Your task to perform on an android device: change keyboard looks Image 0: 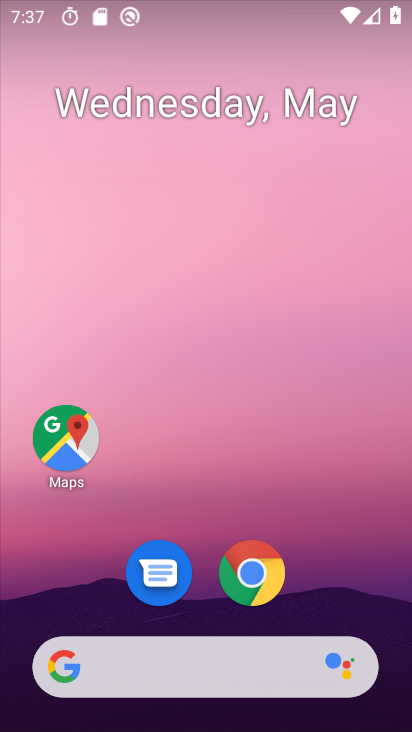
Step 0: drag from (371, 601) to (264, 20)
Your task to perform on an android device: change keyboard looks Image 1: 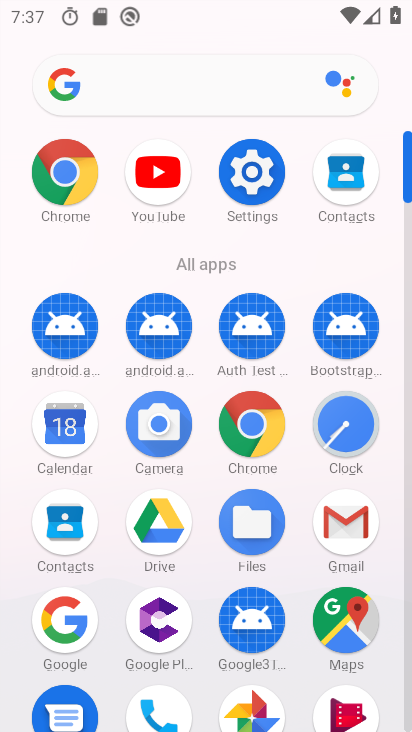
Step 1: click (240, 161)
Your task to perform on an android device: change keyboard looks Image 2: 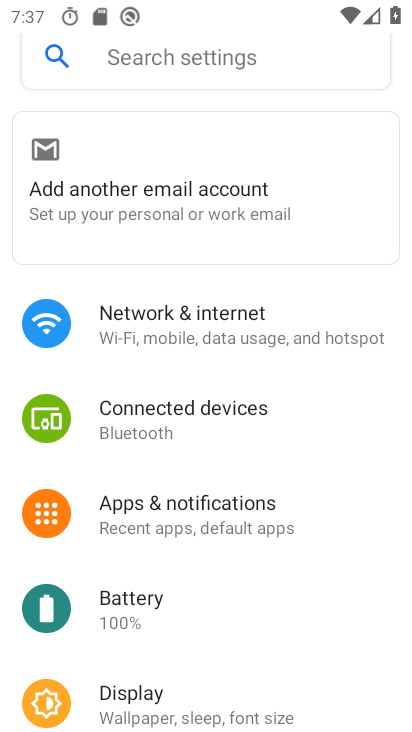
Step 2: drag from (304, 645) to (269, 389)
Your task to perform on an android device: change keyboard looks Image 3: 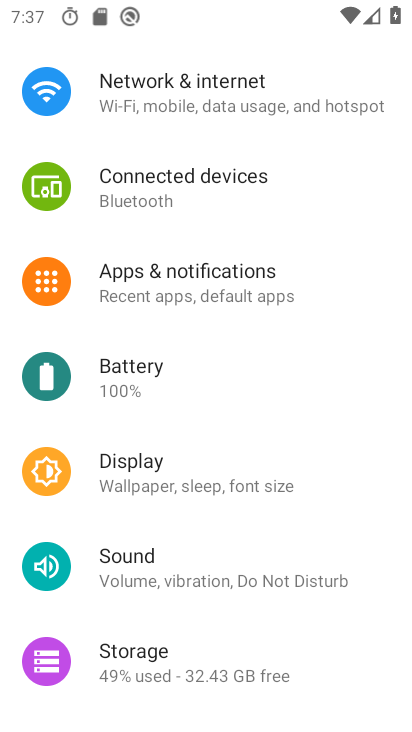
Step 3: drag from (261, 621) to (209, 342)
Your task to perform on an android device: change keyboard looks Image 4: 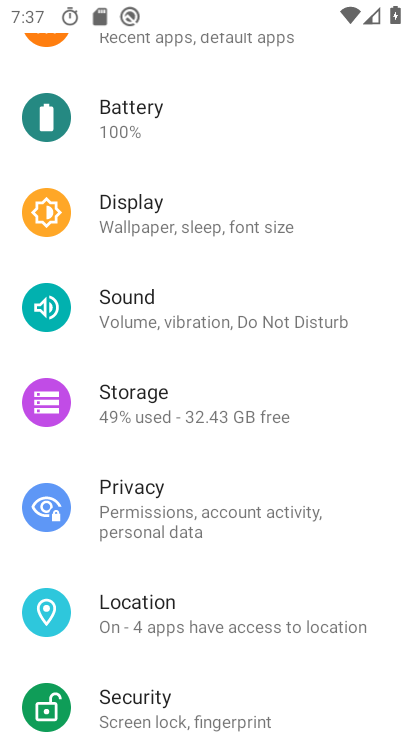
Step 4: drag from (222, 632) to (234, 408)
Your task to perform on an android device: change keyboard looks Image 5: 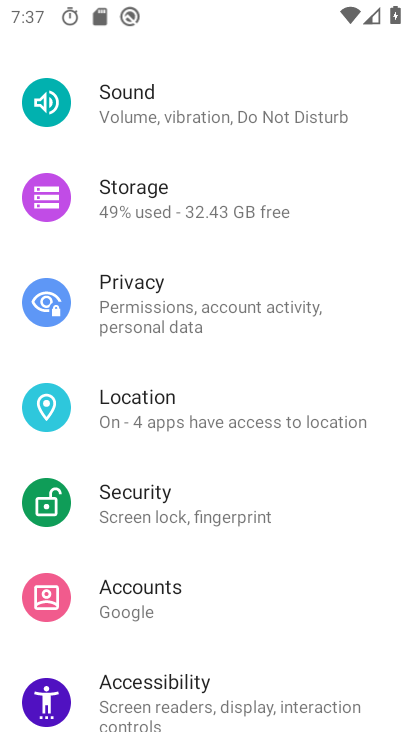
Step 5: drag from (197, 655) to (209, 464)
Your task to perform on an android device: change keyboard looks Image 6: 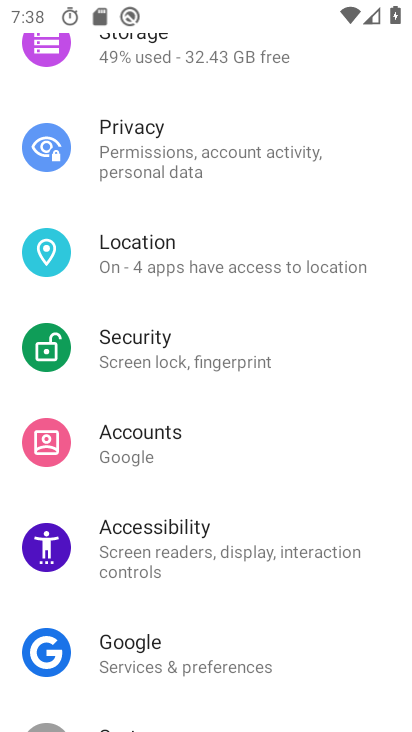
Step 6: drag from (211, 688) to (215, 566)
Your task to perform on an android device: change keyboard looks Image 7: 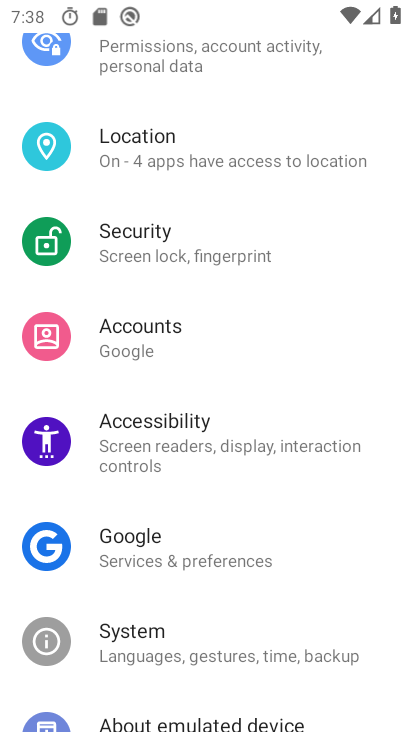
Step 7: click (189, 659)
Your task to perform on an android device: change keyboard looks Image 8: 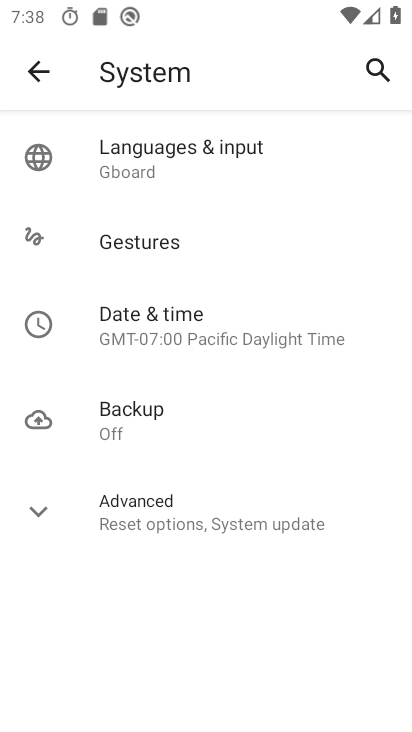
Step 8: click (210, 140)
Your task to perform on an android device: change keyboard looks Image 9: 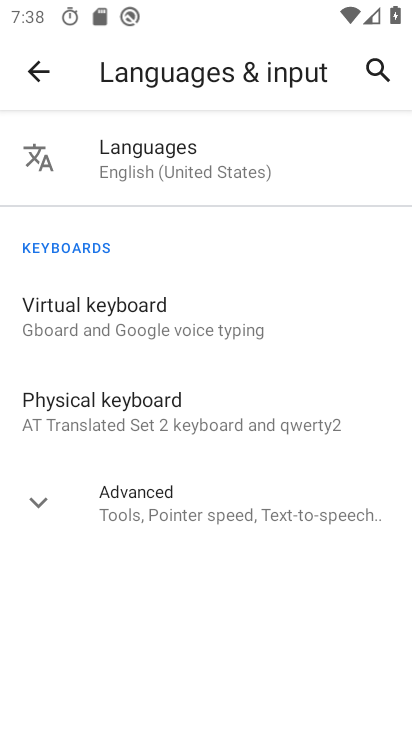
Step 9: click (202, 318)
Your task to perform on an android device: change keyboard looks Image 10: 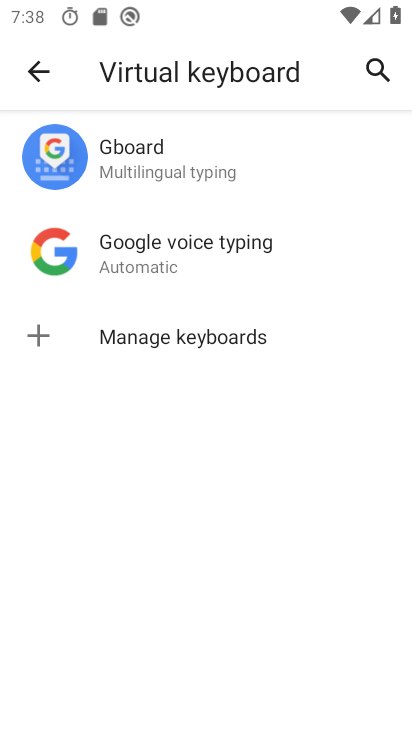
Step 10: click (172, 147)
Your task to perform on an android device: change keyboard looks Image 11: 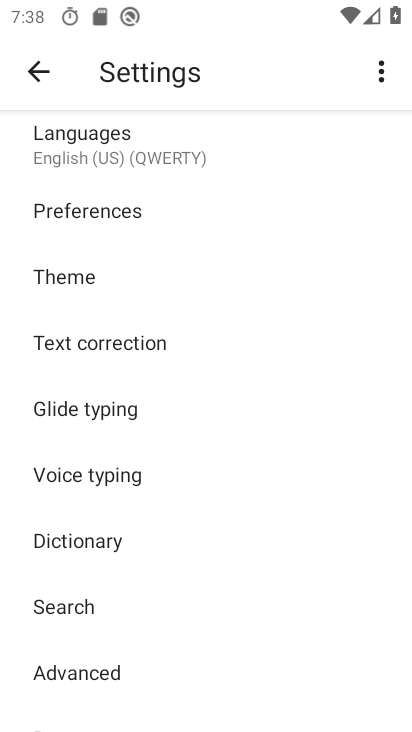
Step 11: click (93, 282)
Your task to perform on an android device: change keyboard looks Image 12: 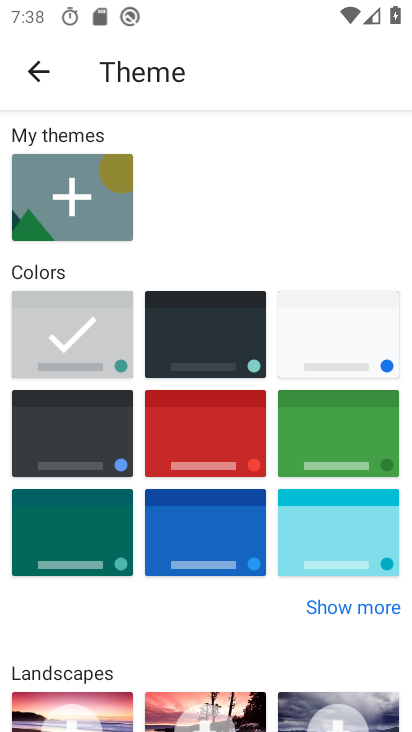
Step 12: click (200, 537)
Your task to perform on an android device: change keyboard looks Image 13: 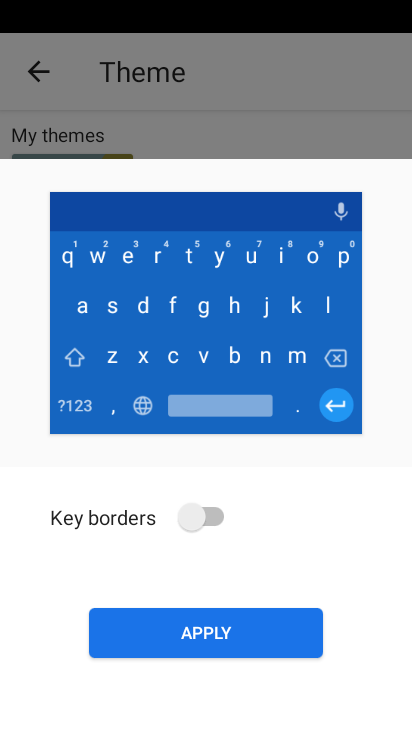
Step 13: click (190, 630)
Your task to perform on an android device: change keyboard looks Image 14: 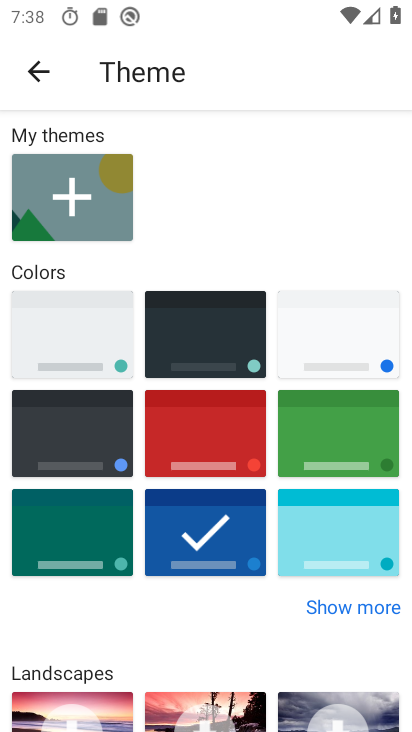
Step 14: task complete